Your task to perform on an android device: Open the web browser Image 0: 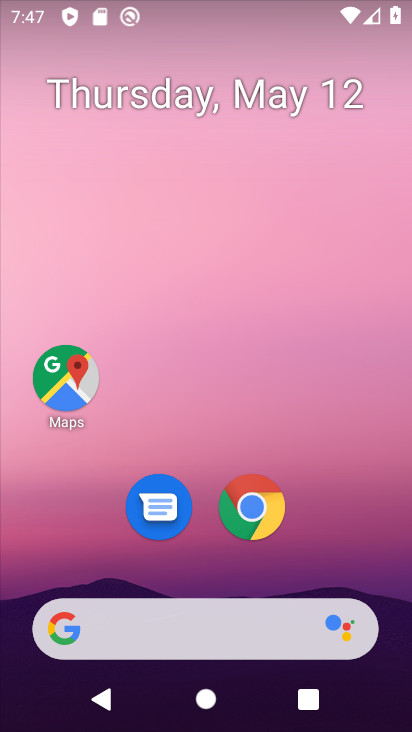
Step 0: click (218, 520)
Your task to perform on an android device: Open the web browser Image 1: 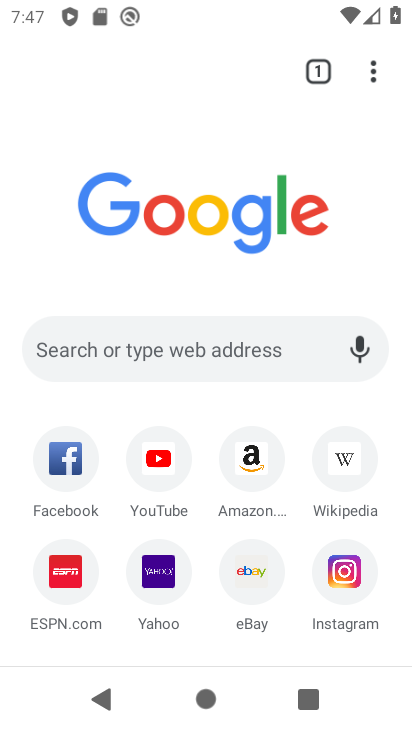
Step 1: task complete